Your task to perform on an android device: delete the emails in spam in the gmail app Image 0: 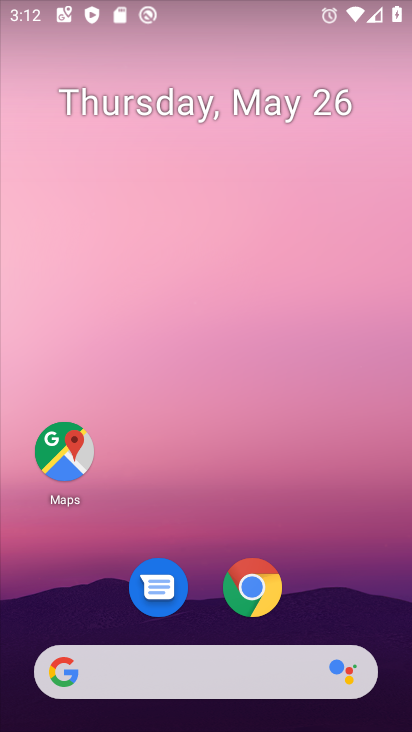
Step 0: drag from (346, 611) to (376, 265)
Your task to perform on an android device: delete the emails in spam in the gmail app Image 1: 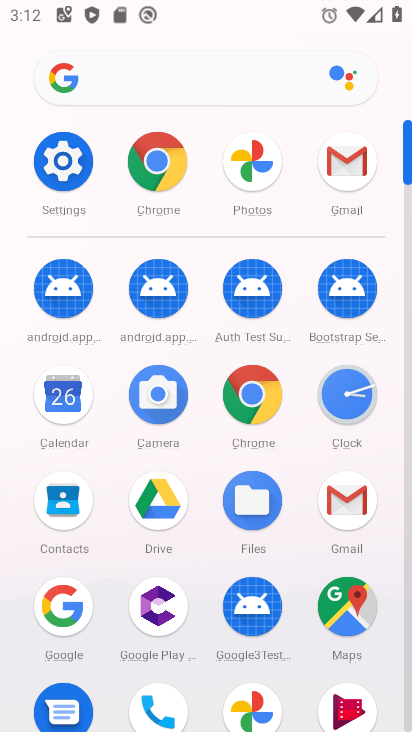
Step 1: click (355, 500)
Your task to perform on an android device: delete the emails in spam in the gmail app Image 2: 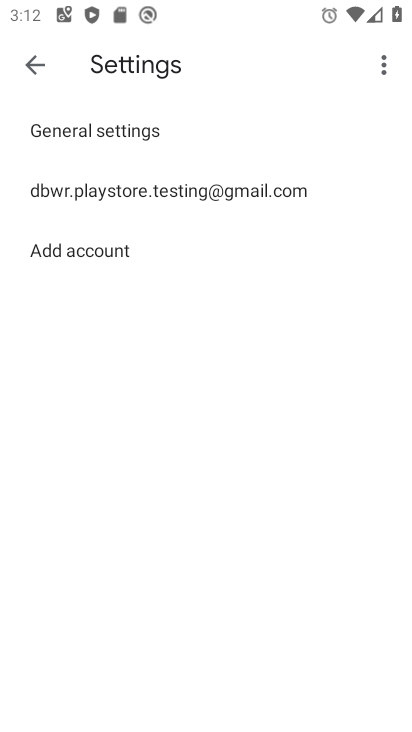
Step 2: click (29, 68)
Your task to perform on an android device: delete the emails in spam in the gmail app Image 3: 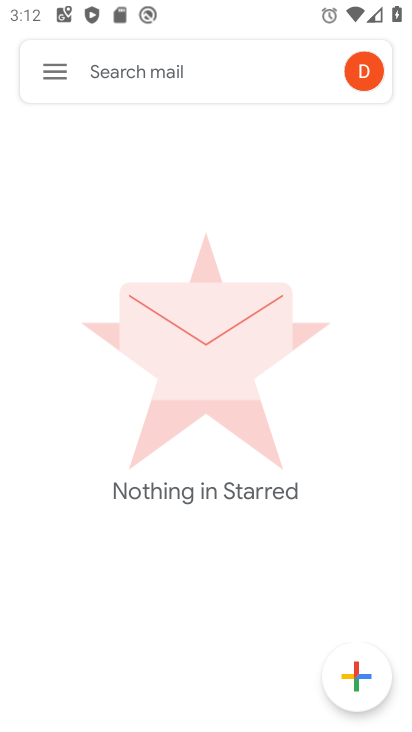
Step 3: click (60, 64)
Your task to perform on an android device: delete the emails in spam in the gmail app Image 4: 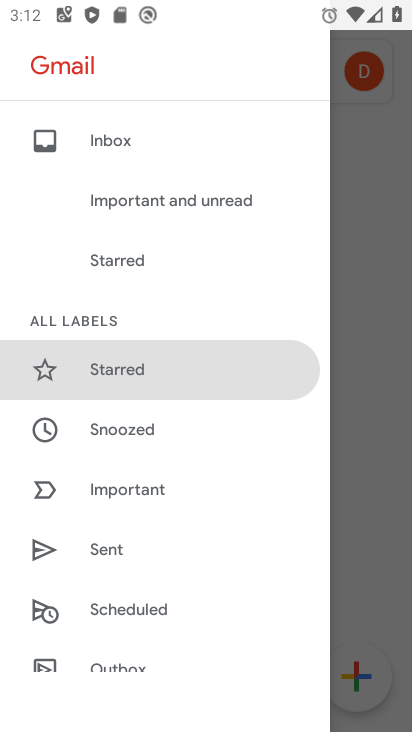
Step 4: click (109, 145)
Your task to perform on an android device: delete the emails in spam in the gmail app Image 5: 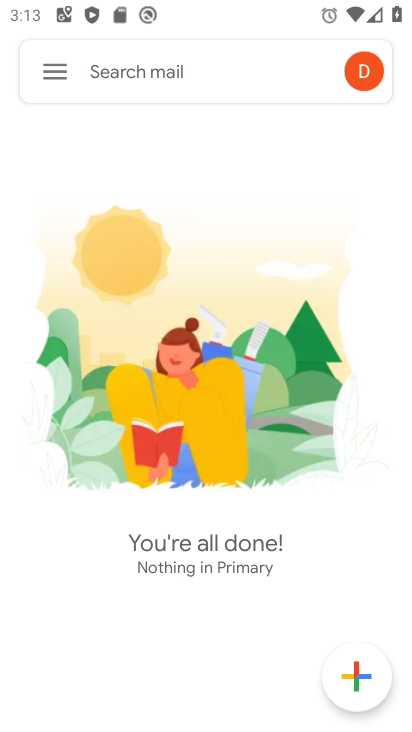
Step 5: task complete